Your task to perform on an android device: turn on the 12-hour format for clock Image 0: 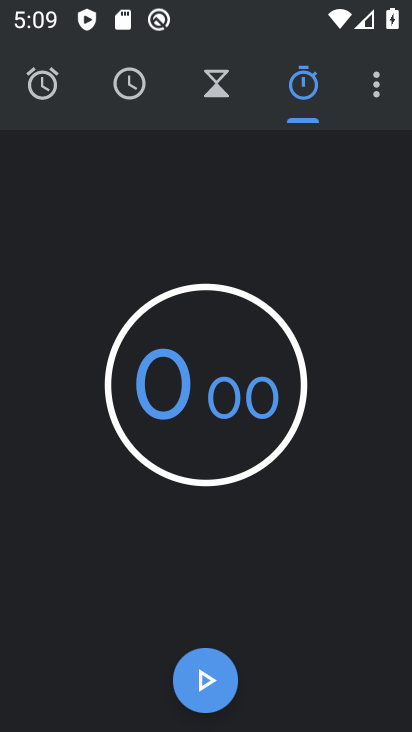
Step 0: click (377, 90)
Your task to perform on an android device: turn on the 12-hour format for clock Image 1: 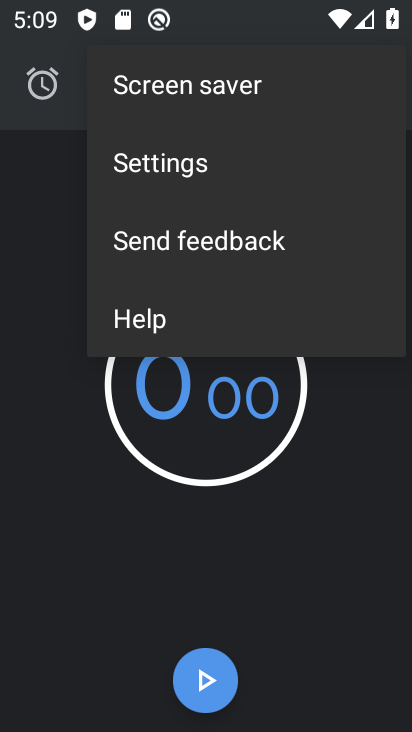
Step 1: click (195, 169)
Your task to perform on an android device: turn on the 12-hour format for clock Image 2: 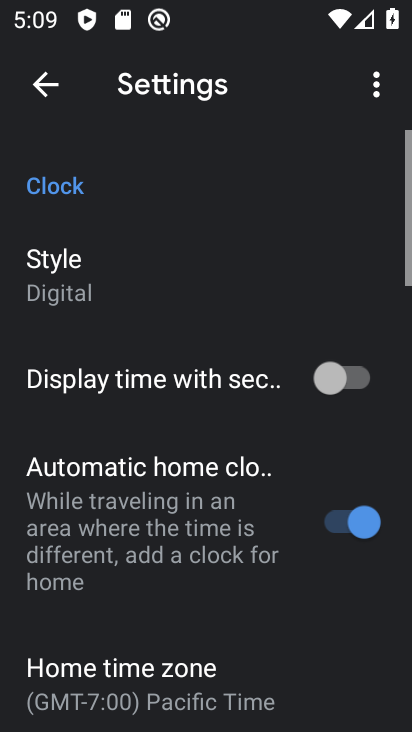
Step 2: drag from (162, 639) to (278, 274)
Your task to perform on an android device: turn on the 12-hour format for clock Image 3: 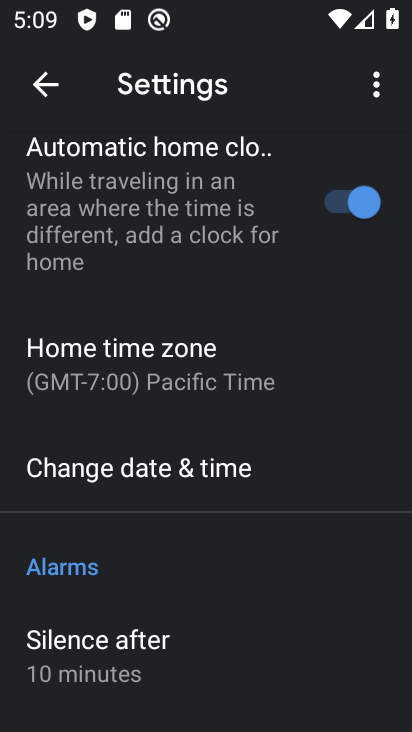
Step 3: click (148, 458)
Your task to perform on an android device: turn on the 12-hour format for clock Image 4: 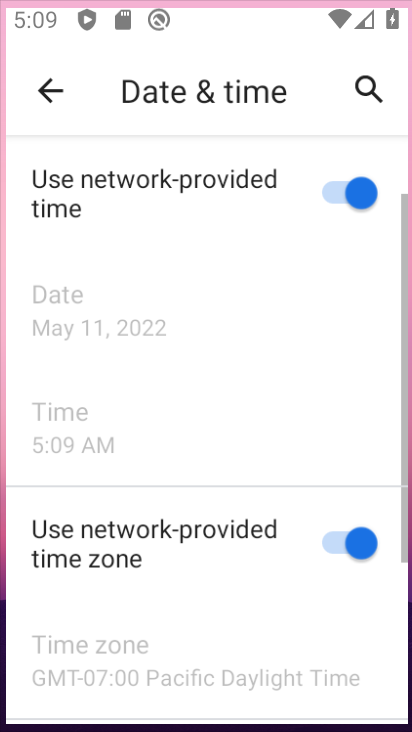
Step 4: task complete